Your task to perform on an android device: Clear the shopping cart on amazon.com. Image 0: 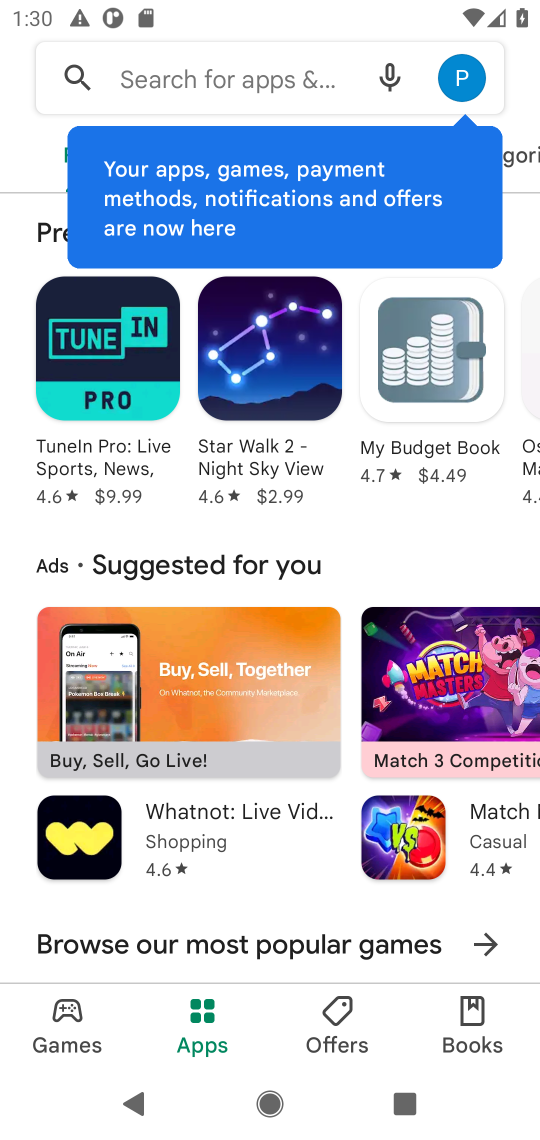
Step 0: press home button
Your task to perform on an android device: Clear the shopping cart on amazon.com. Image 1: 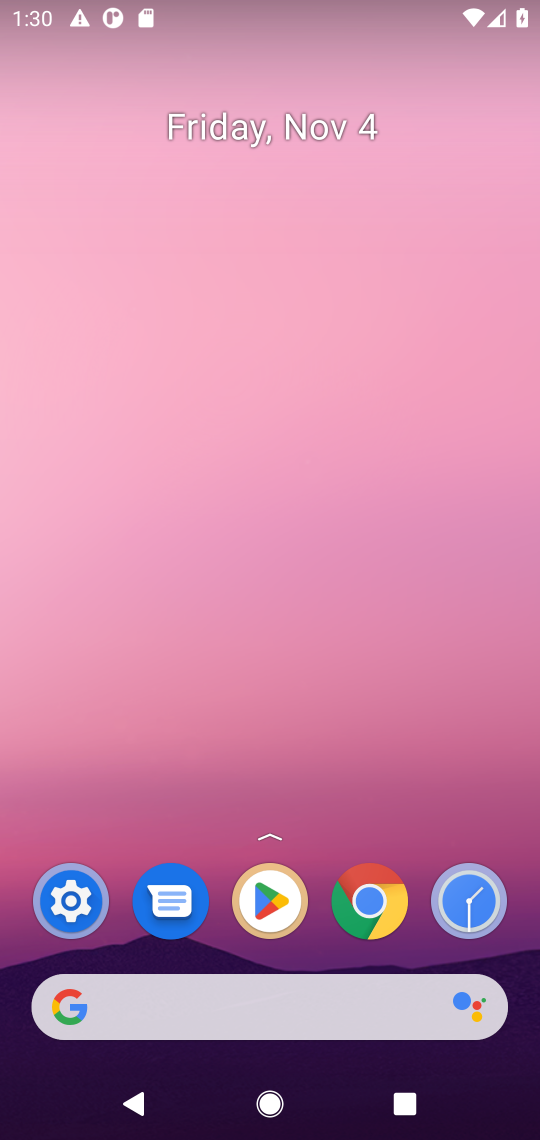
Step 1: click (369, 887)
Your task to perform on an android device: Clear the shopping cart on amazon.com. Image 2: 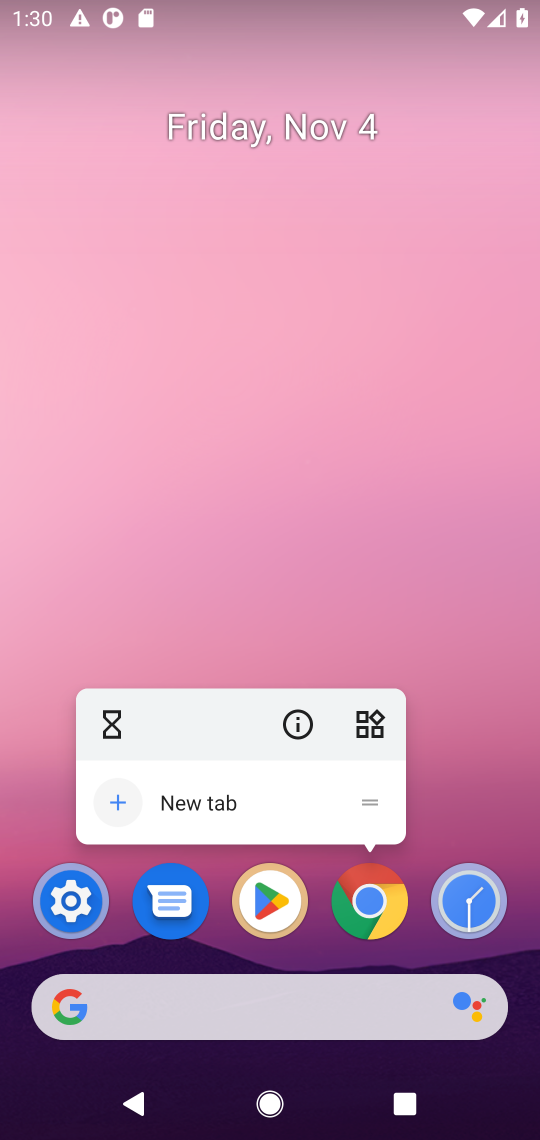
Step 2: click (372, 888)
Your task to perform on an android device: Clear the shopping cart on amazon.com. Image 3: 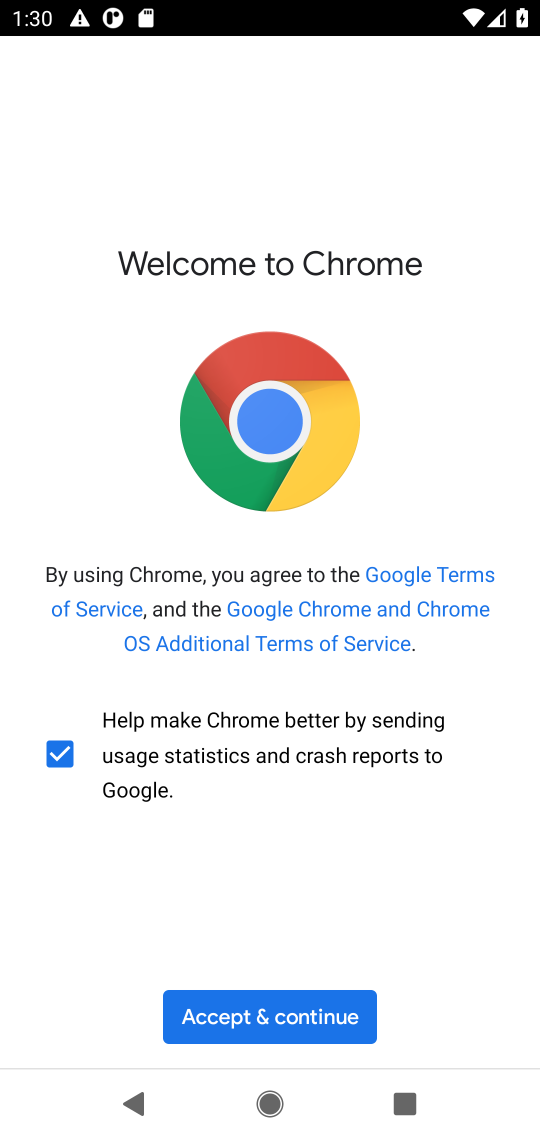
Step 3: click (334, 1022)
Your task to perform on an android device: Clear the shopping cart on amazon.com. Image 4: 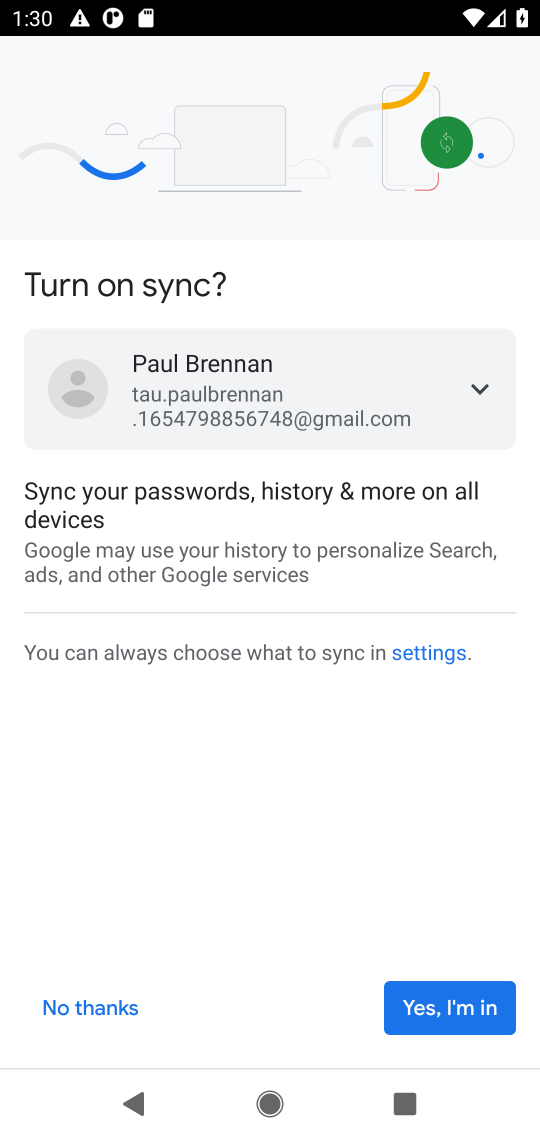
Step 4: click (464, 1007)
Your task to perform on an android device: Clear the shopping cart on amazon.com. Image 5: 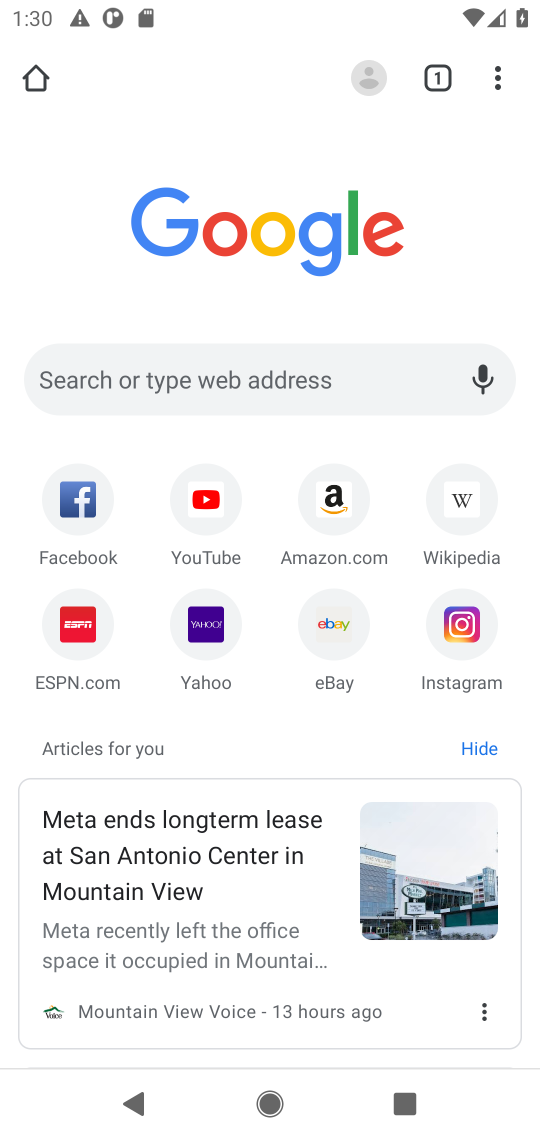
Step 5: click (337, 489)
Your task to perform on an android device: Clear the shopping cart on amazon.com. Image 6: 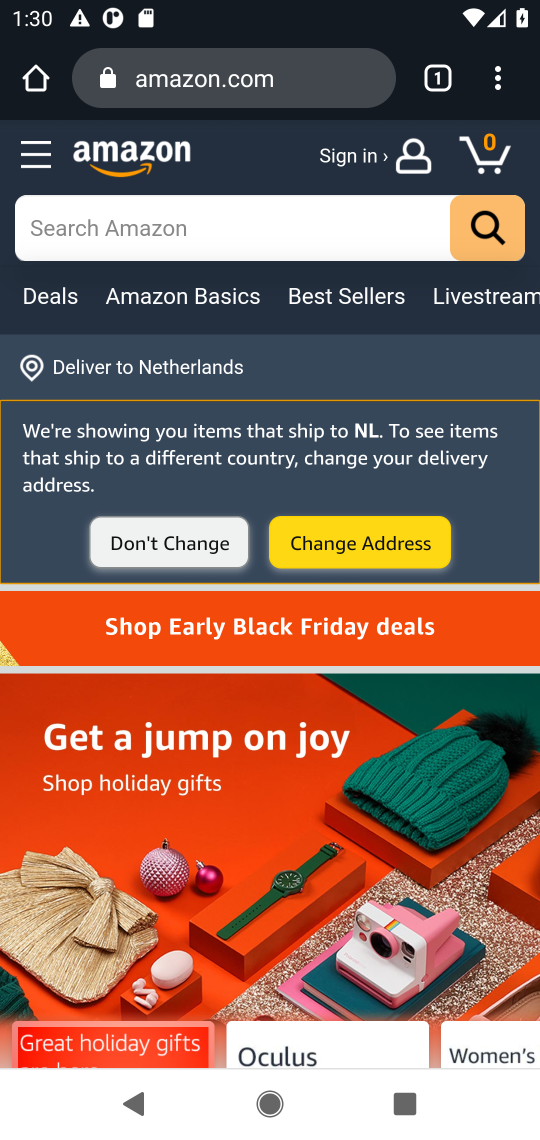
Step 6: click (479, 154)
Your task to perform on an android device: Clear the shopping cart on amazon.com. Image 7: 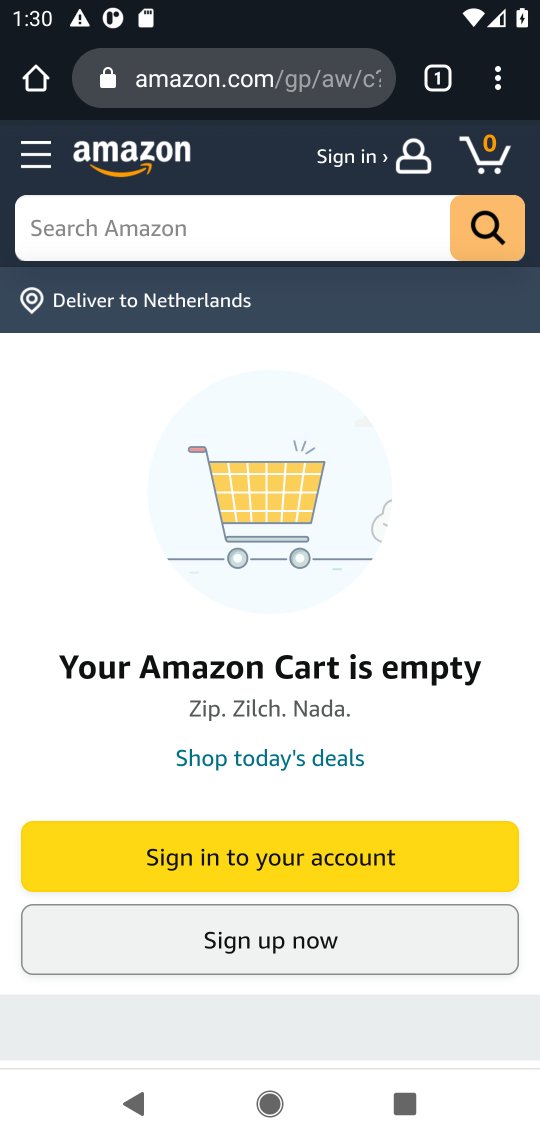
Step 7: task complete